Your task to perform on an android device: Is it going to rain today? Image 0: 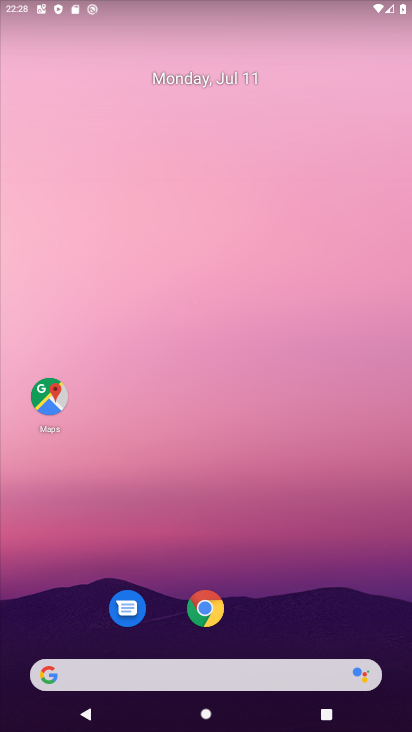
Step 0: drag from (71, 44) to (150, 66)
Your task to perform on an android device: Is it going to rain today? Image 1: 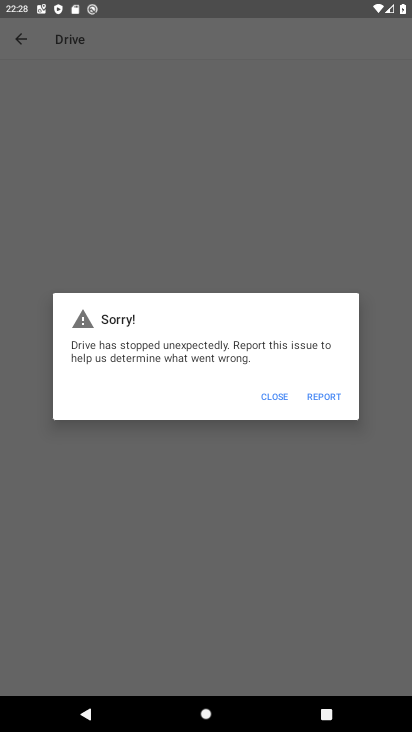
Step 1: press home button
Your task to perform on an android device: Is it going to rain today? Image 2: 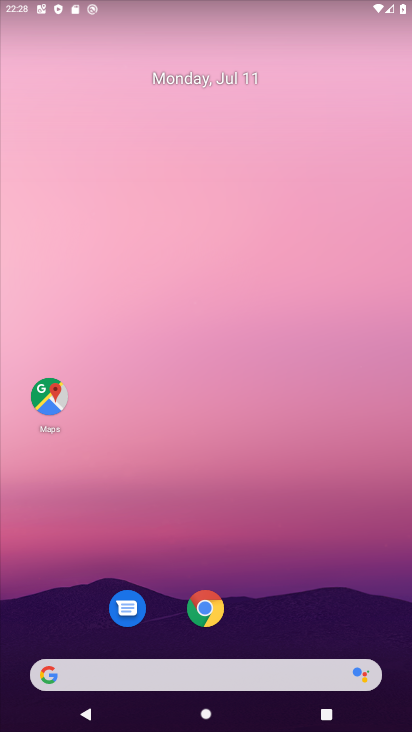
Step 2: click (122, 682)
Your task to perform on an android device: Is it going to rain today? Image 3: 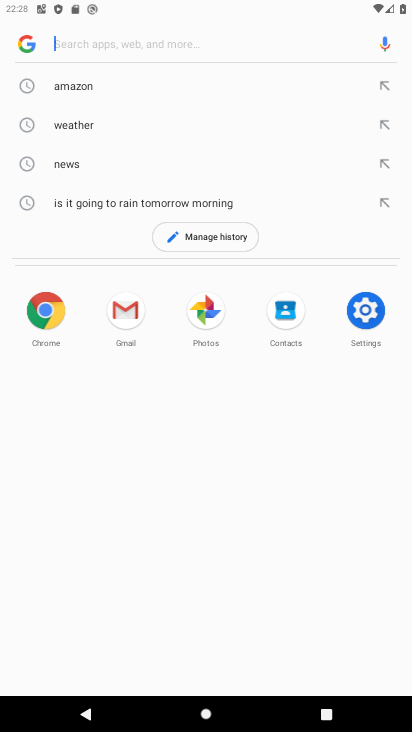
Step 3: type "Is it going to rain today?"
Your task to perform on an android device: Is it going to rain today? Image 4: 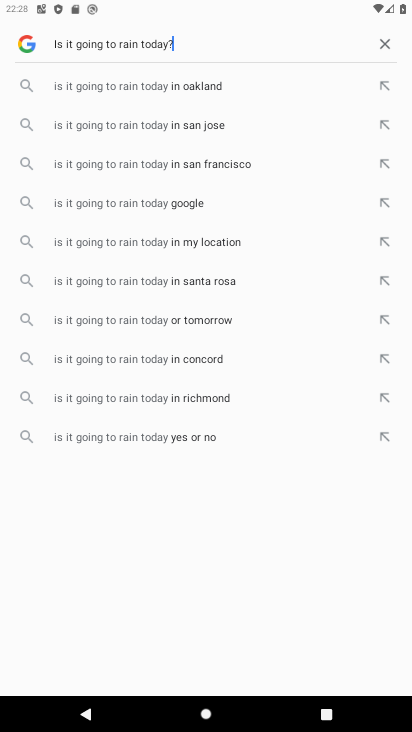
Step 4: type ""
Your task to perform on an android device: Is it going to rain today? Image 5: 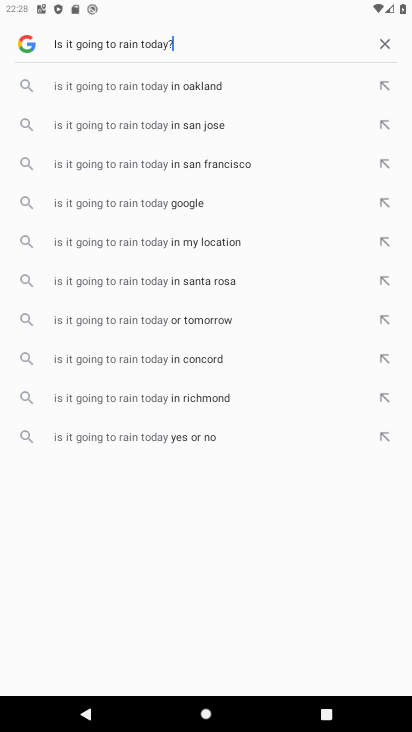
Step 5: type ""
Your task to perform on an android device: Is it going to rain today? Image 6: 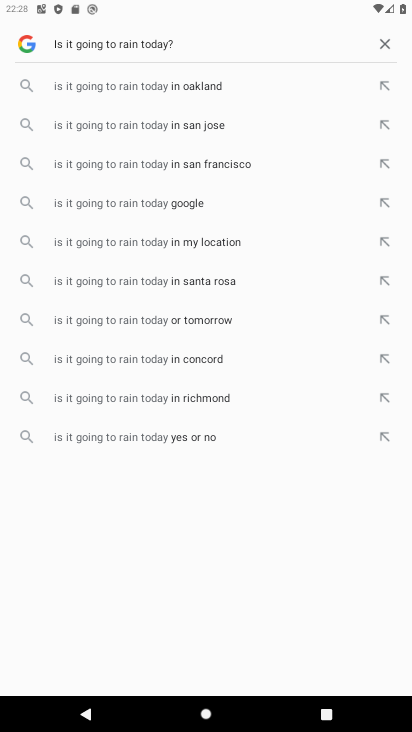
Step 6: type ""
Your task to perform on an android device: Is it going to rain today? Image 7: 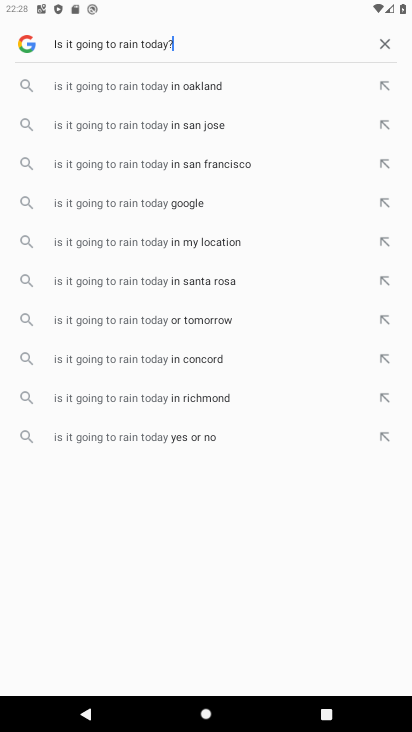
Step 7: type ""
Your task to perform on an android device: Is it going to rain today? Image 8: 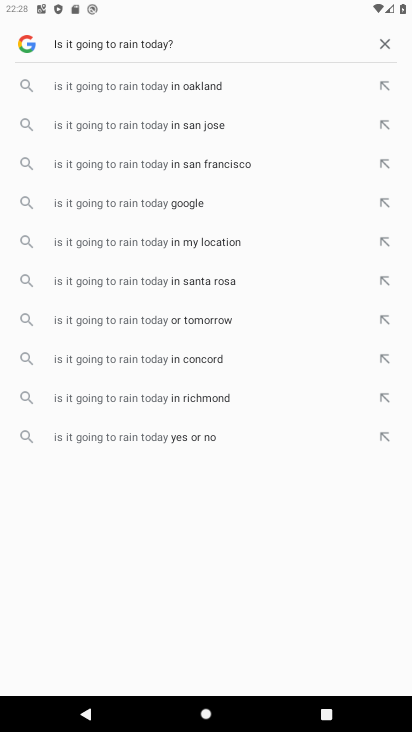
Step 8: task complete